Your task to perform on an android device: change timer sound Image 0: 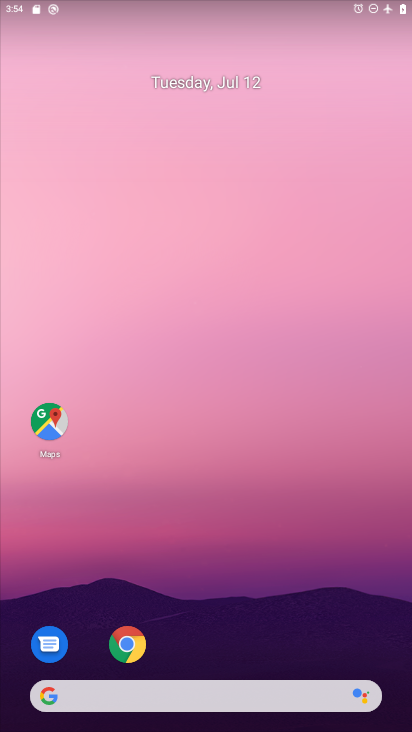
Step 0: drag from (260, 624) to (229, 94)
Your task to perform on an android device: change timer sound Image 1: 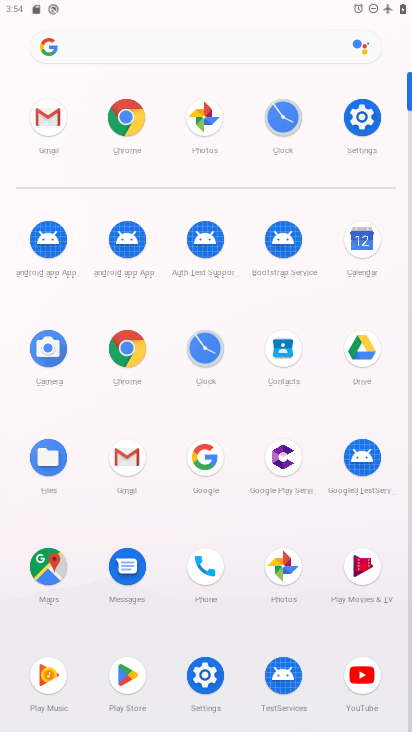
Step 1: click (207, 344)
Your task to perform on an android device: change timer sound Image 2: 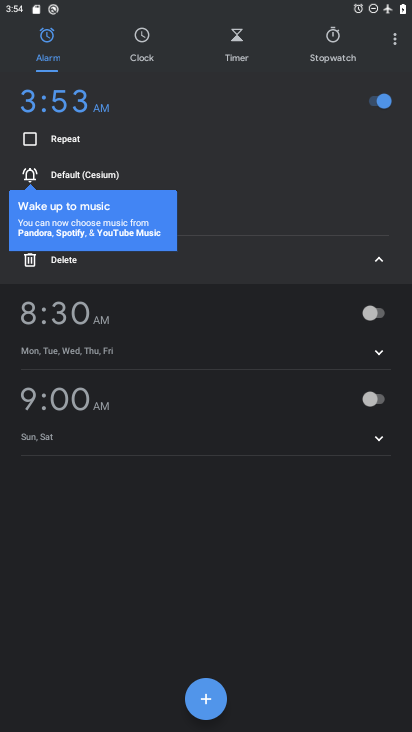
Step 2: click (395, 34)
Your task to perform on an android device: change timer sound Image 3: 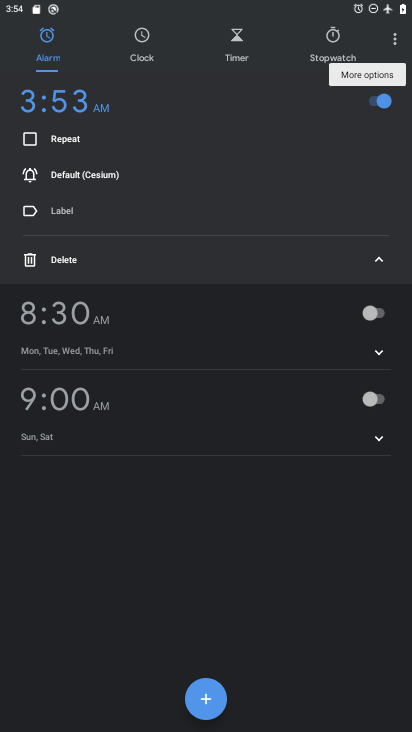
Step 3: click (392, 44)
Your task to perform on an android device: change timer sound Image 4: 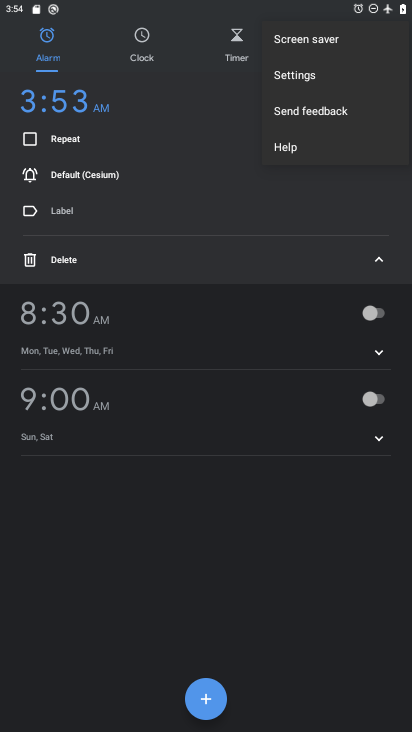
Step 4: click (293, 81)
Your task to perform on an android device: change timer sound Image 5: 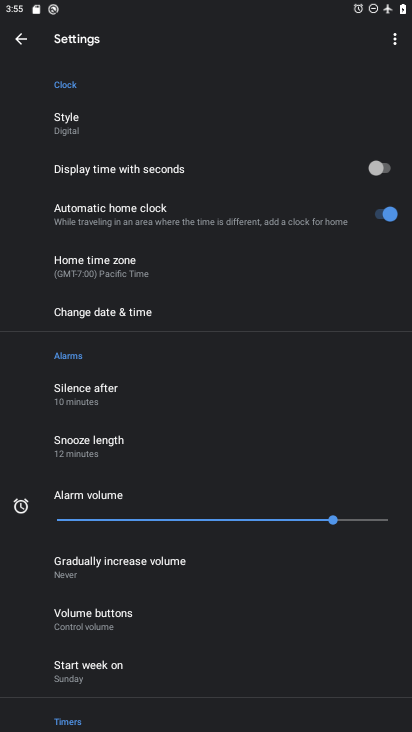
Step 5: drag from (285, 670) to (322, 192)
Your task to perform on an android device: change timer sound Image 6: 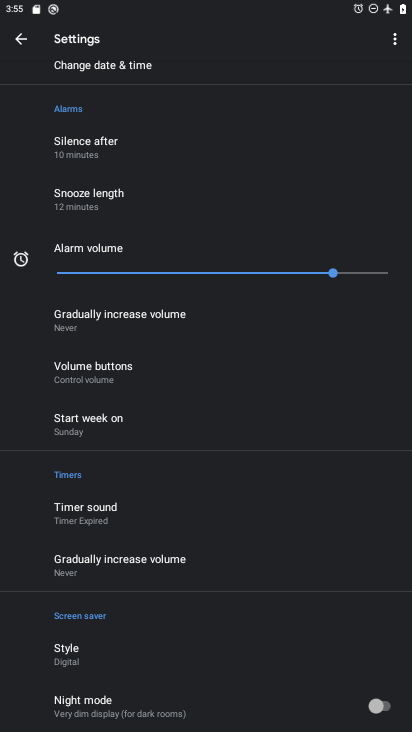
Step 6: click (99, 510)
Your task to perform on an android device: change timer sound Image 7: 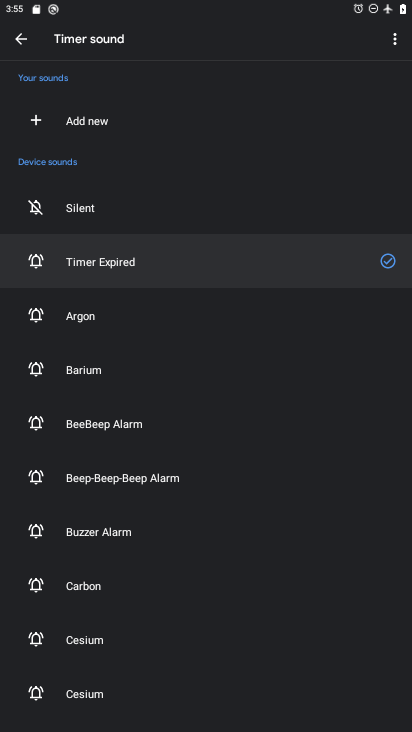
Step 7: click (148, 318)
Your task to perform on an android device: change timer sound Image 8: 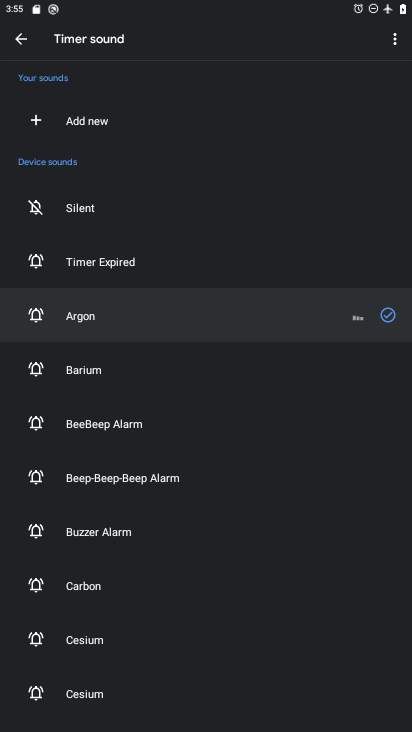
Step 8: task complete